Your task to perform on an android device: toggle sleep mode Image 0: 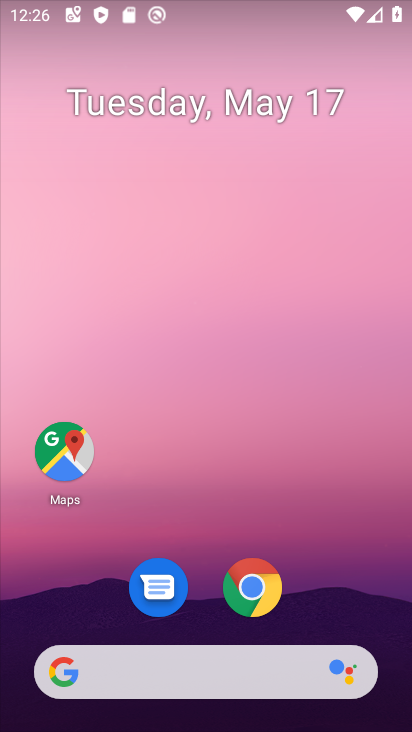
Step 0: drag from (187, 637) to (171, 92)
Your task to perform on an android device: toggle sleep mode Image 1: 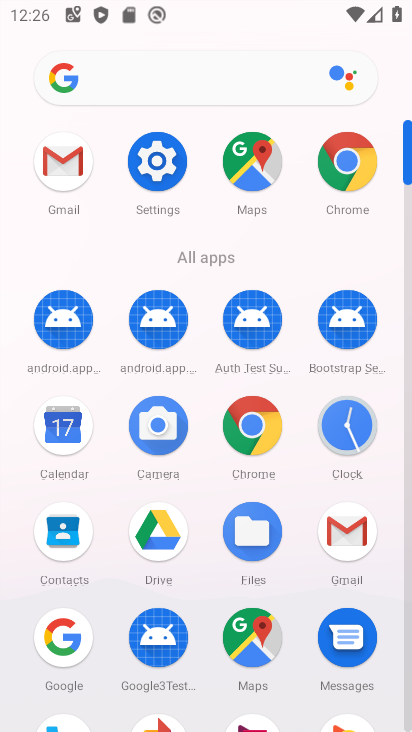
Step 1: click (137, 168)
Your task to perform on an android device: toggle sleep mode Image 2: 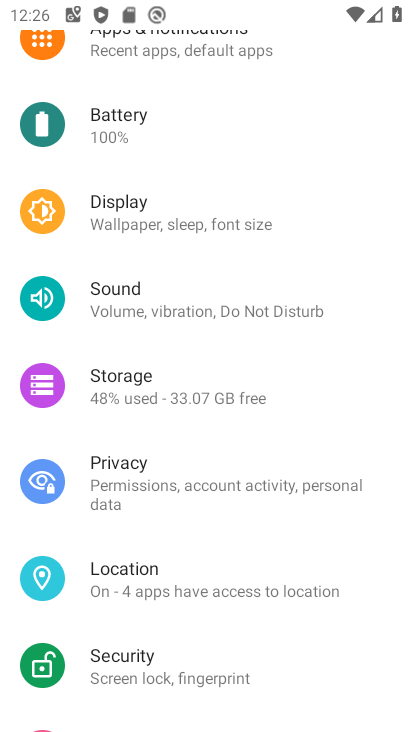
Step 2: click (177, 231)
Your task to perform on an android device: toggle sleep mode Image 3: 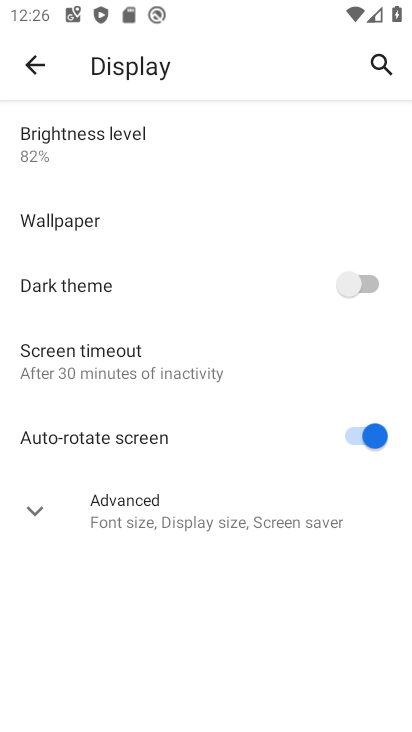
Step 3: task complete